Your task to perform on an android device: all mails in gmail Image 0: 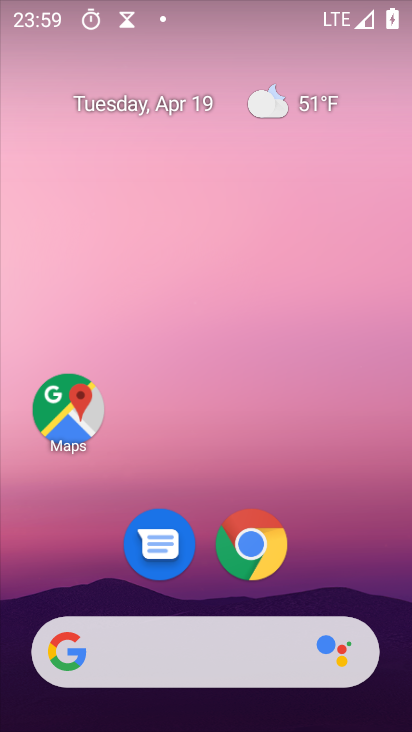
Step 0: drag from (323, 583) to (355, 97)
Your task to perform on an android device: all mails in gmail Image 1: 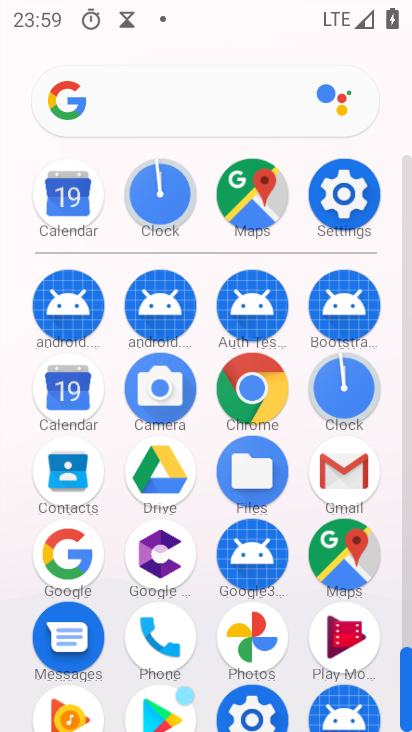
Step 1: click (331, 475)
Your task to perform on an android device: all mails in gmail Image 2: 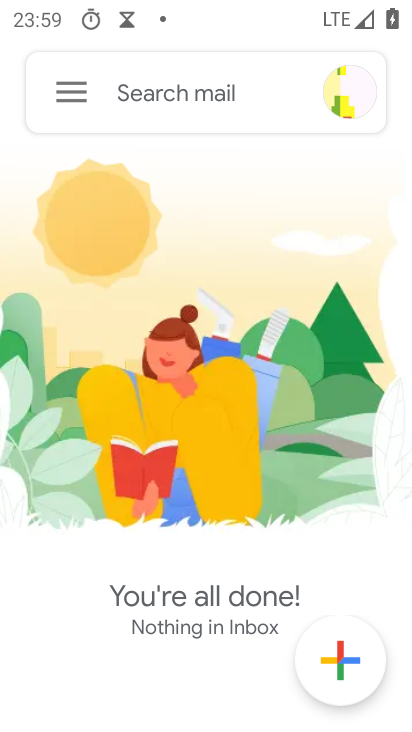
Step 2: click (70, 95)
Your task to perform on an android device: all mails in gmail Image 3: 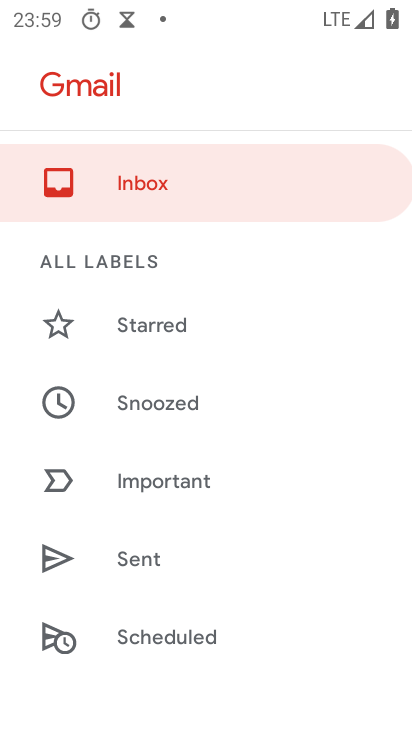
Step 3: drag from (184, 535) to (209, 423)
Your task to perform on an android device: all mails in gmail Image 4: 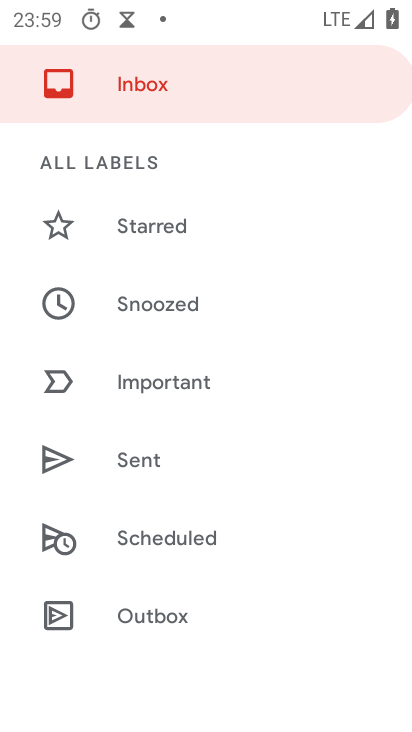
Step 4: drag from (217, 545) to (216, 442)
Your task to perform on an android device: all mails in gmail Image 5: 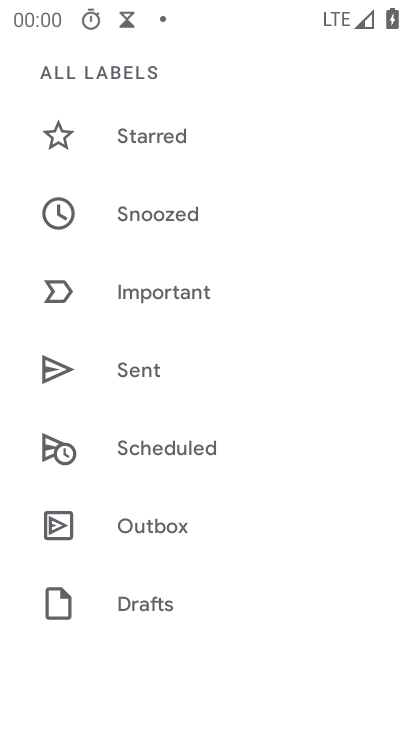
Step 5: drag from (159, 582) to (179, 506)
Your task to perform on an android device: all mails in gmail Image 6: 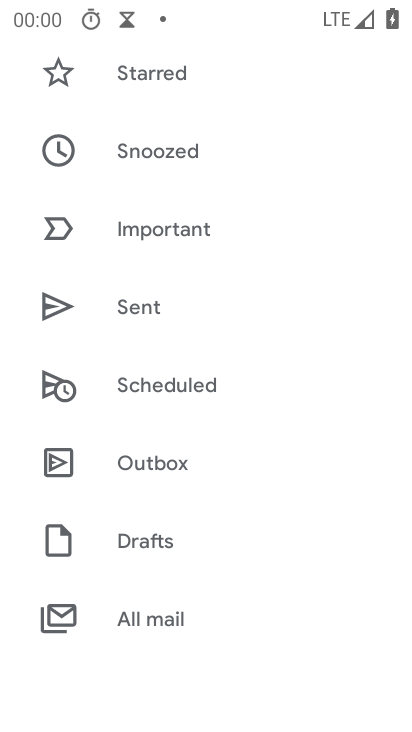
Step 6: click (171, 606)
Your task to perform on an android device: all mails in gmail Image 7: 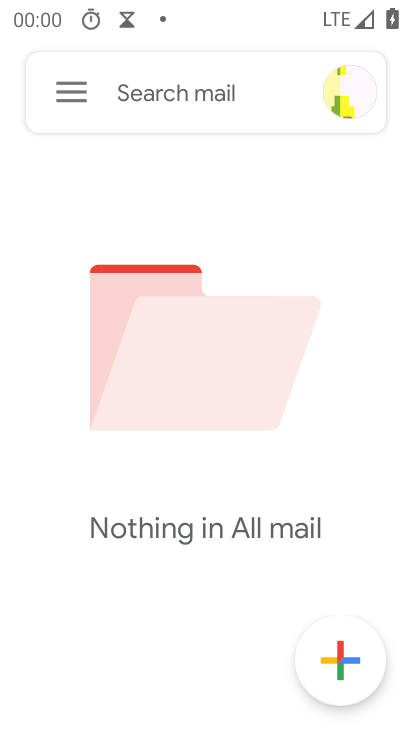
Step 7: task complete